Your task to perform on an android device: Open my contact list Image 0: 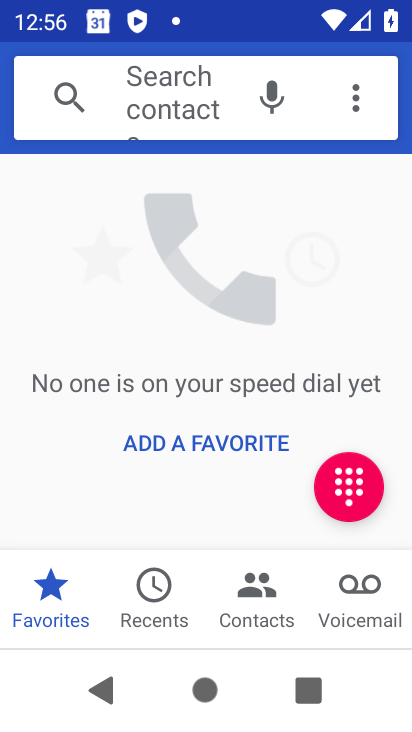
Step 0: press back button
Your task to perform on an android device: Open my contact list Image 1: 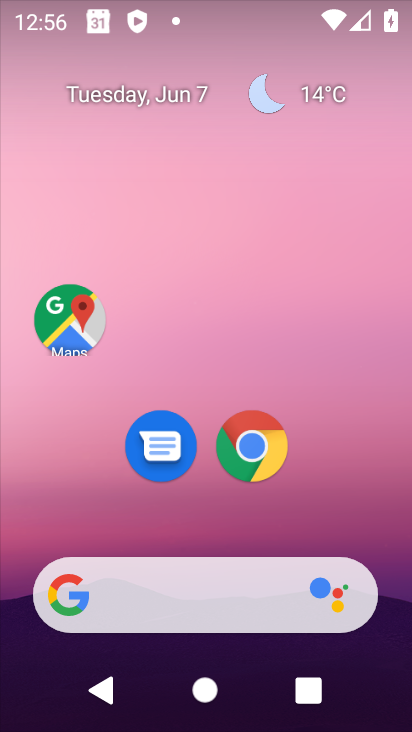
Step 1: drag from (375, 615) to (322, 55)
Your task to perform on an android device: Open my contact list Image 2: 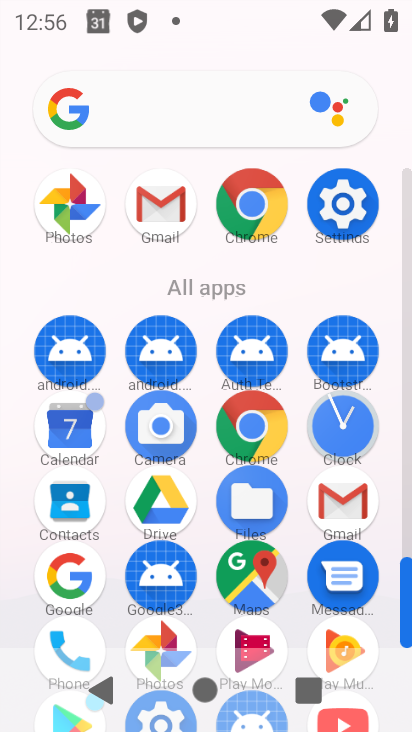
Step 2: drag from (19, 559) to (53, 232)
Your task to perform on an android device: Open my contact list Image 3: 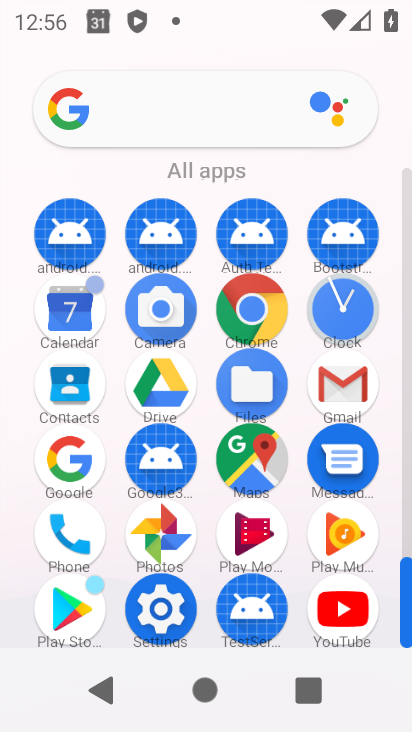
Step 3: click (73, 534)
Your task to perform on an android device: Open my contact list Image 4: 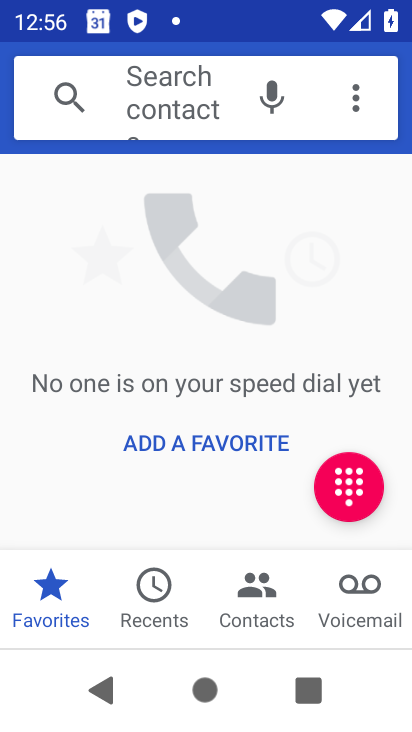
Step 4: click (286, 600)
Your task to perform on an android device: Open my contact list Image 5: 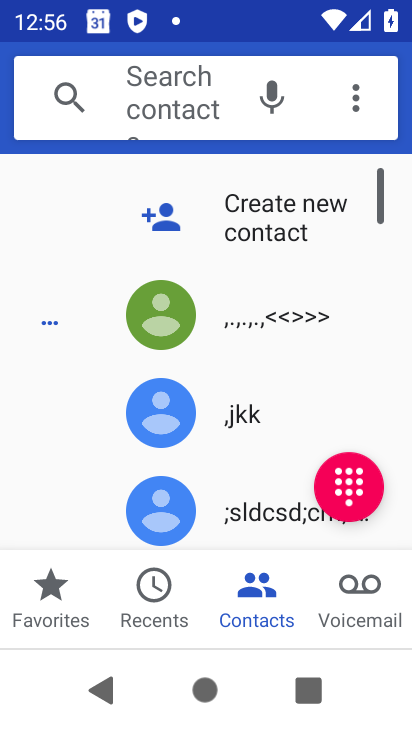
Step 5: task complete